Your task to perform on an android device: Open Google Chrome and open the bookmarks view Image 0: 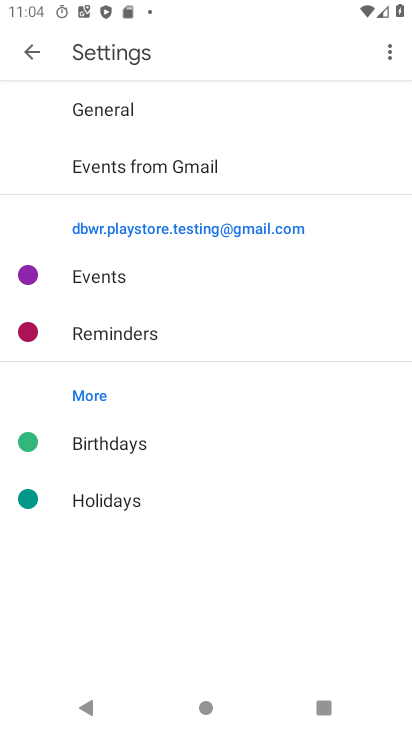
Step 0: press home button
Your task to perform on an android device: Open Google Chrome and open the bookmarks view Image 1: 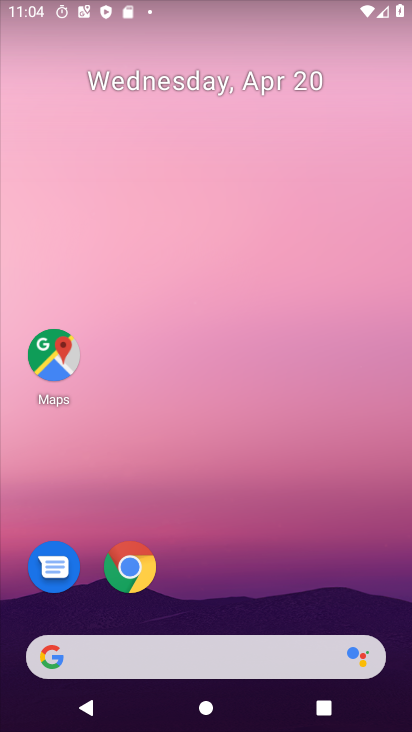
Step 1: click (162, 565)
Your task to perform on an android device: Open Google Chrome and open the bookmarks view Image 2: 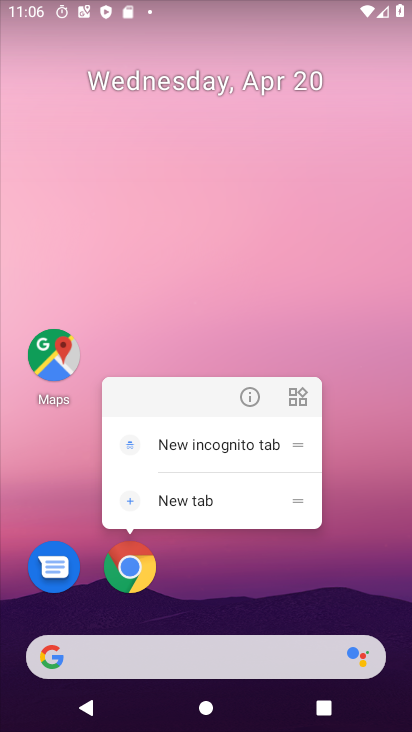
Step 2: click (258, 392)
Your task to perform on an android device: Open Google Chrome and open the bookmarks view Image 3: 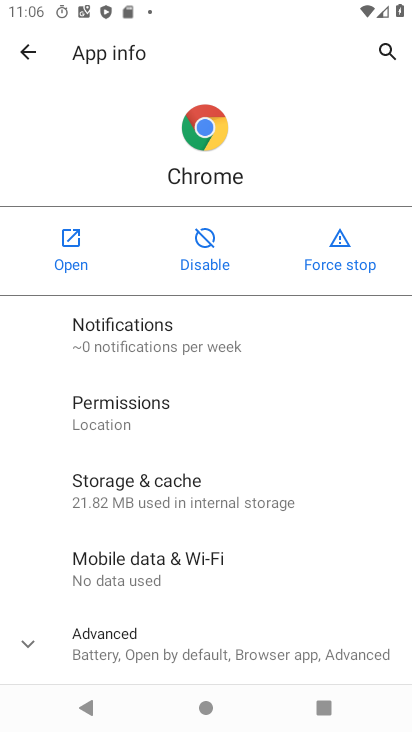
Step 3: click (52, 257)
Your task to perform on an android device: Open Google Chrome and open the bookmarks view Image 4: 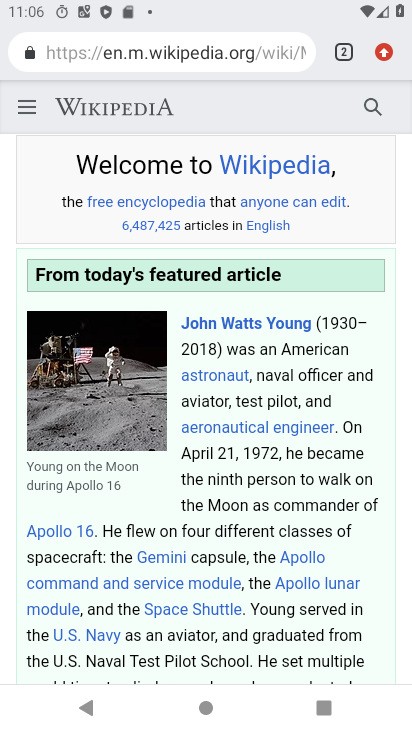
Step 4: click (379, 54)
Your task to perform on an android device: Open Google Chrome and open the bookmarks view Image 5: 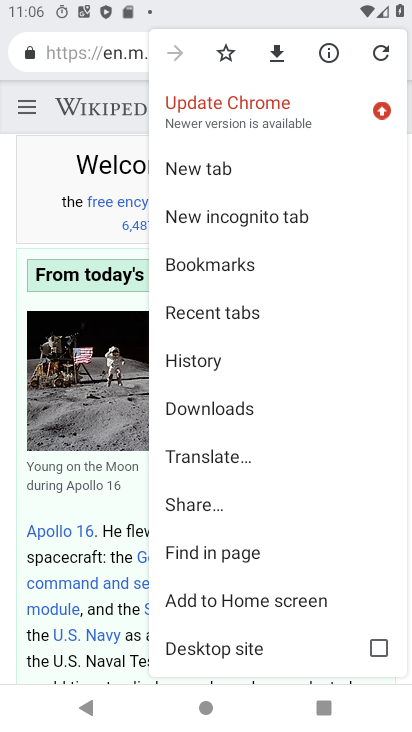
Step 5: click (261, 268)
Your task to perform on an android device: Open Google Chrome and open the bookmarks view Image 6: 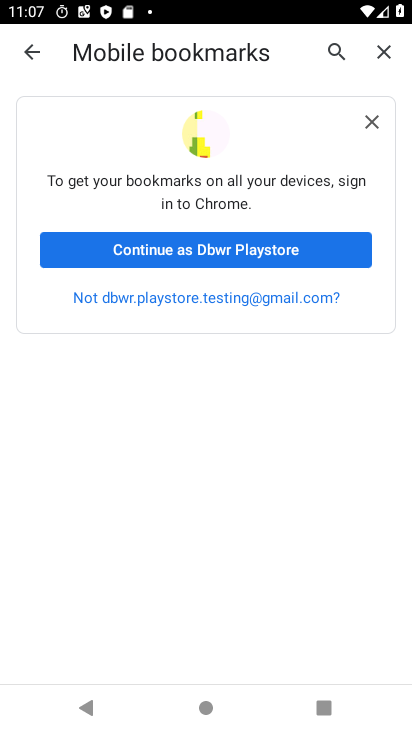
Step 6: click (274, 252)
Your task to perform on an android device: Open Google Chrome and open the bookmarks view Image 7: 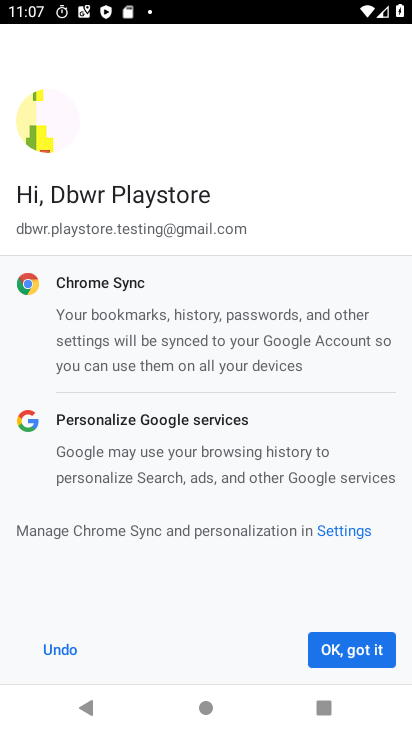
Step 7: click (350, 652)
Your task to perform on an android device: Open Google Chrome and open the bookmarks view Image 8: 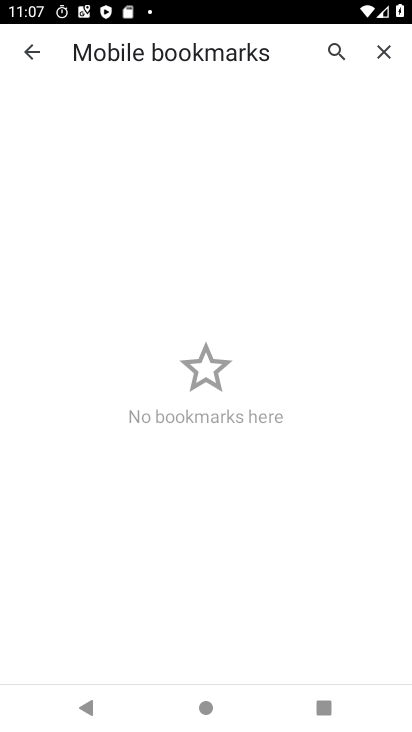
Step 8: task complete